Your task to perform on an android device: turn on sleep mode Image 0: 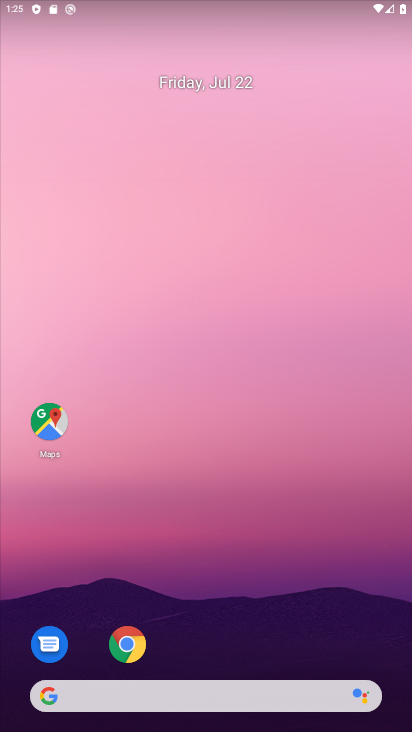
Step 0: drag from (241, 655) to (249, 142)
Your task to perform on an android device: turn on sleep mode Image 1: 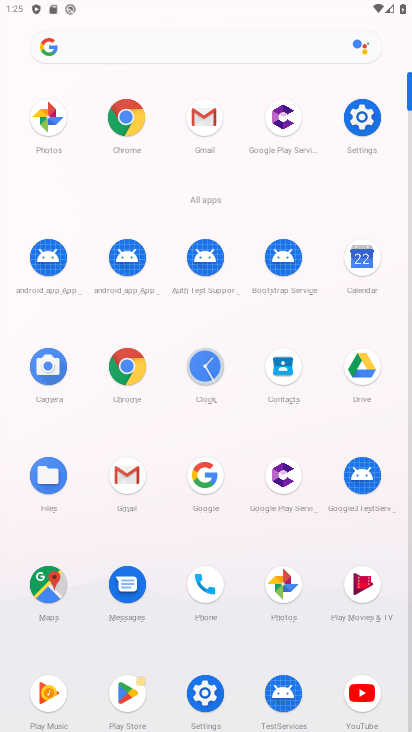
Step 1: click (352, 112)
Your task to perform on an android device: turn on sleep mode Image 2: 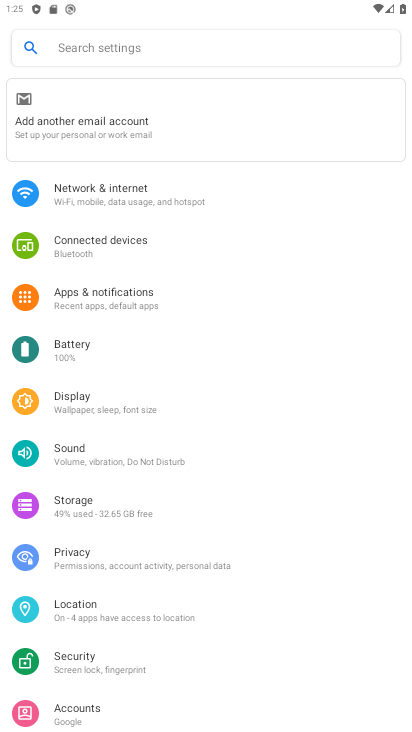
Step 2: task complete